Your task to perform on an android device: Open Google Maps Image 0: 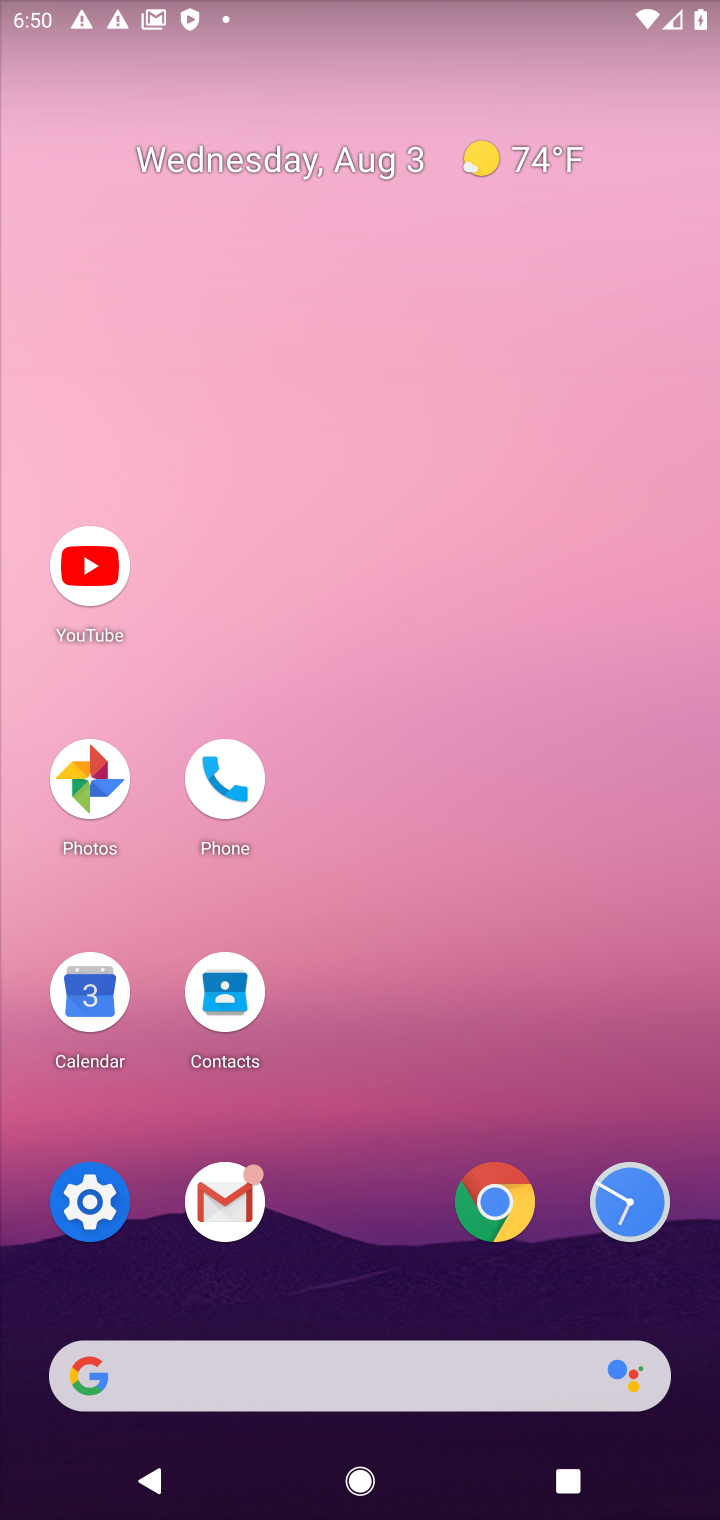
Step 0: drag from (344, 1229) to (319, 294)
Your task to perform on an android device: Open Google Maps Image 1: 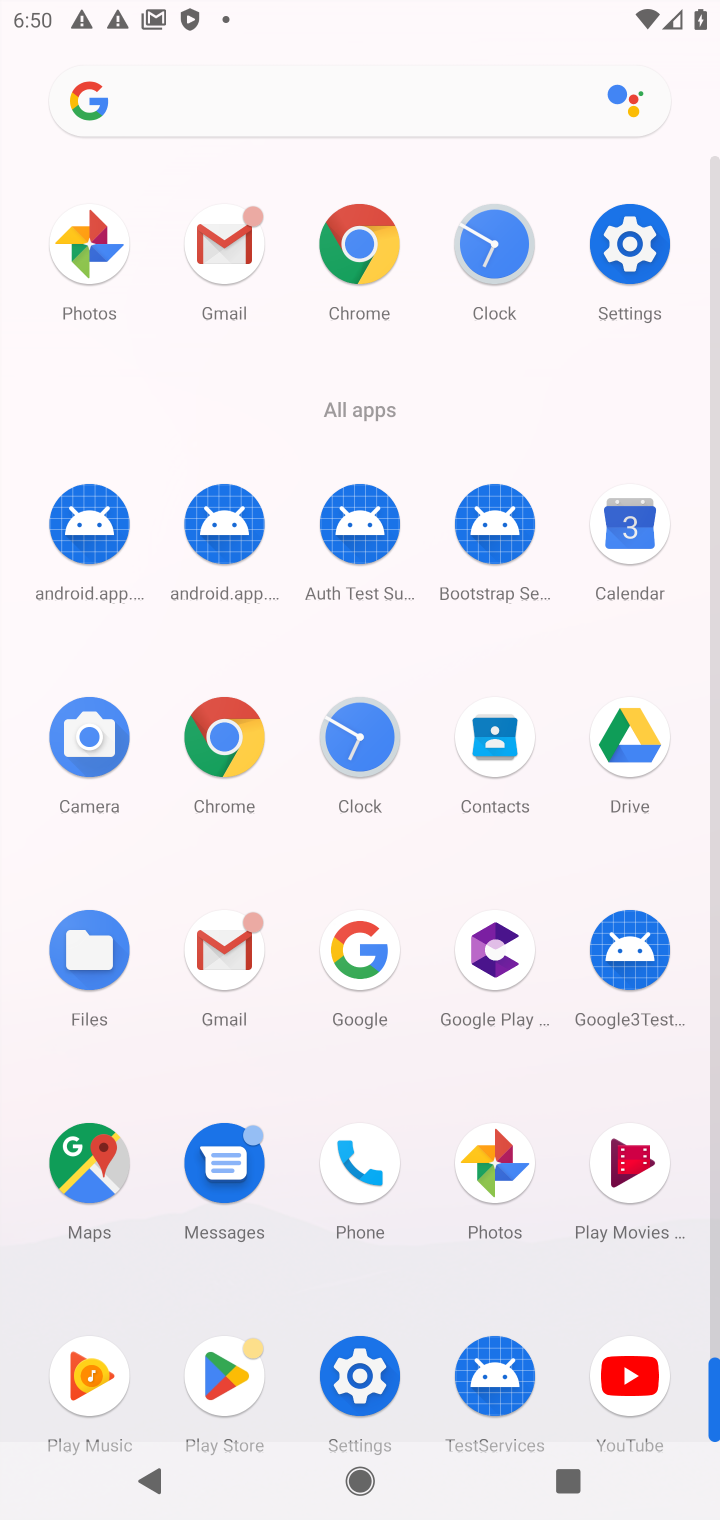
Step 1: click (81, 1163)
Your task to perform on an android device: Open Google Maps Image 2: 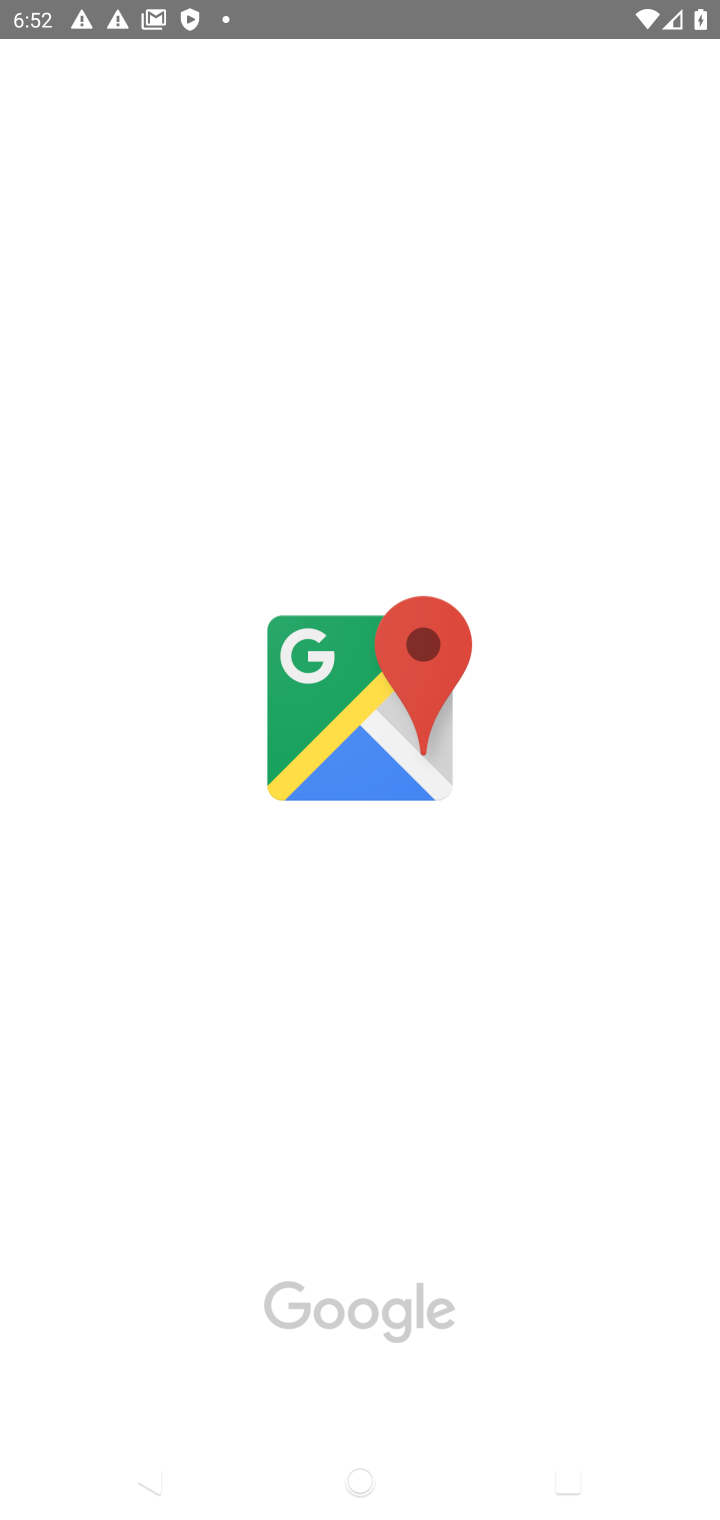
Step 2: task complete